Your task to perform on an android device: Show me the alarms in the clock app Image 0: 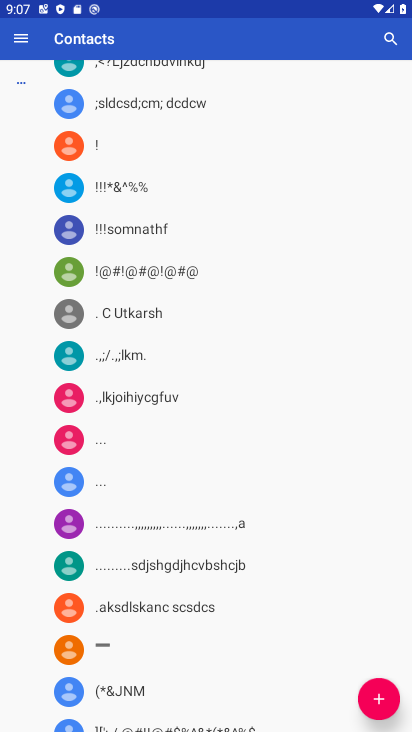
Step 0: press home button
Your task to perform on an android device: Show me the alarms in the clock app Image 1: 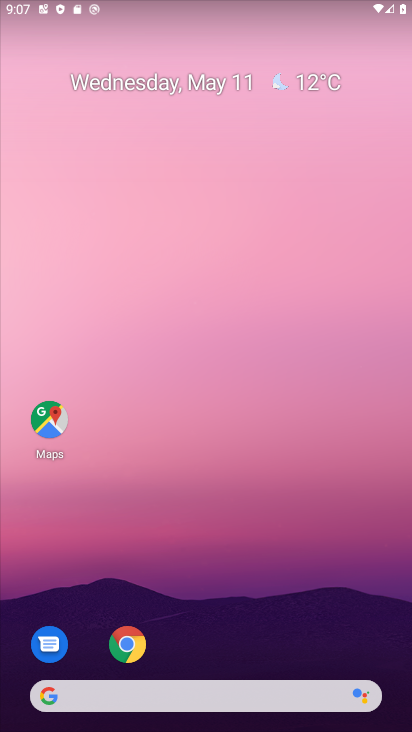
Step 1: drag from (178, 647) to (122, 327)
Your task to perform on an android device: Show me the alarms in the clock app Image 2: 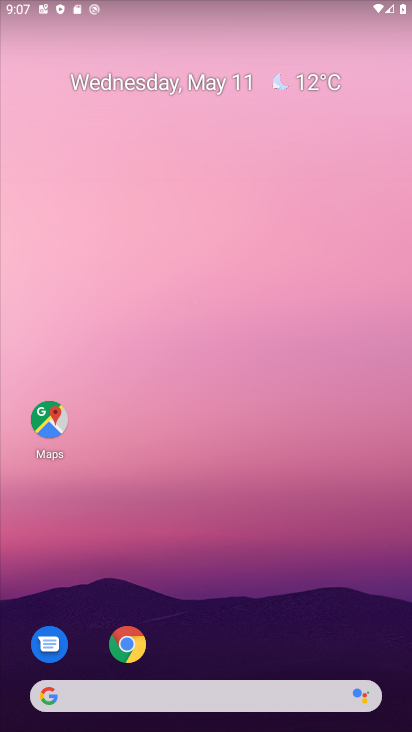
Step 2: drag from (274, 570) to (324, 101)
Your task to perform on an android device: Show me the alarms in the clock app Image 3: 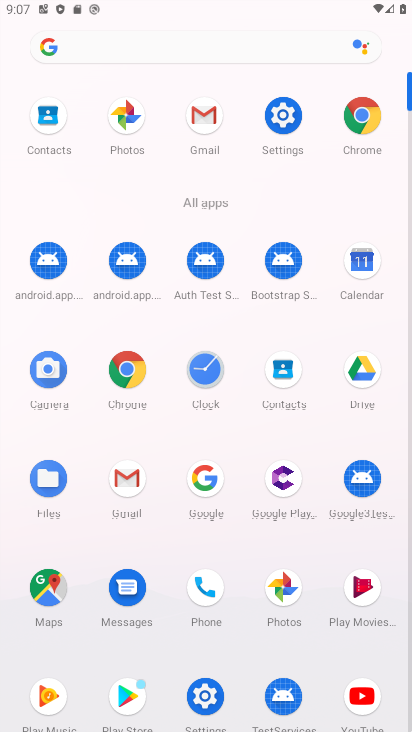
Step 3: click (209, 361)
Your task to perform on an android device: Show me the alarms in the clock app Image 4: 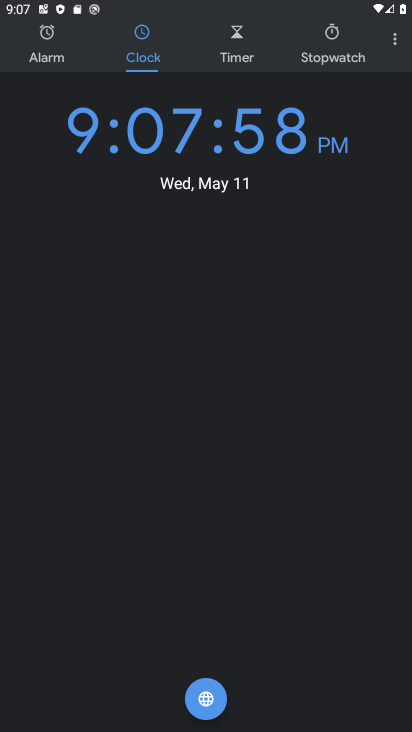
Step 4: click (49, 36)
Your task to perform on an android device: Show me the alarms in the clock app Image 5: 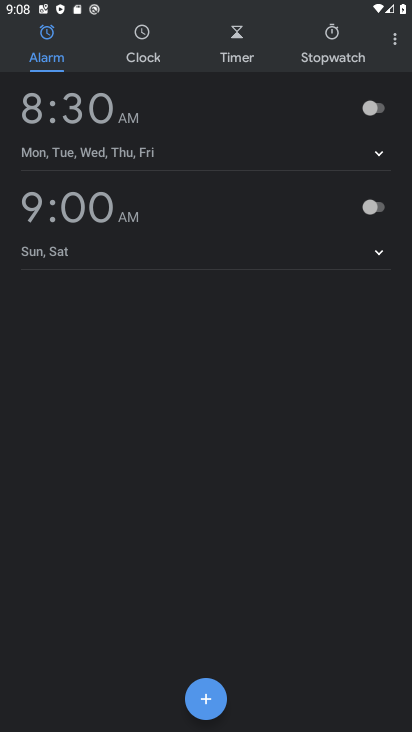
Step 5: task complete